Your task to perform on an android device: Open battery settings Image 0: 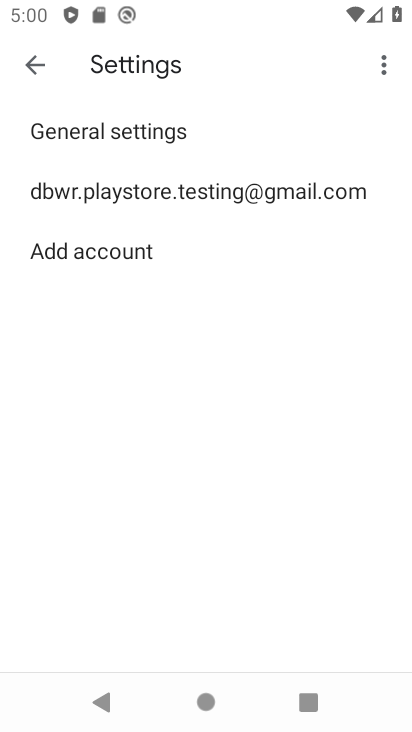
Step 0: click (17, 65)
Your task to perform on an android device: Open battery settings Image 1: 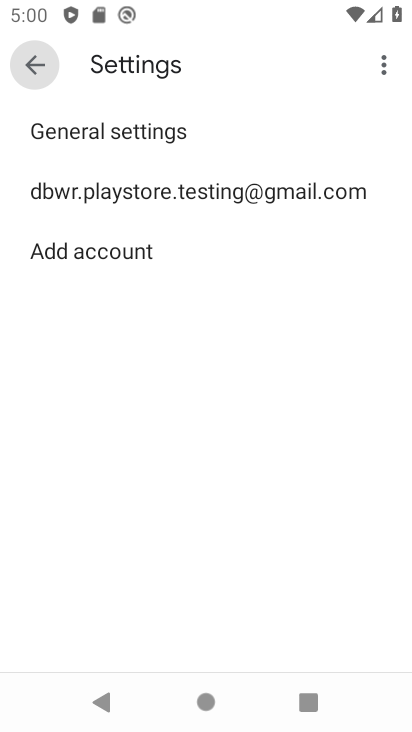
Step 1: click (18, 64)
Your task to perform on an android device: Open battery settings Image 2: 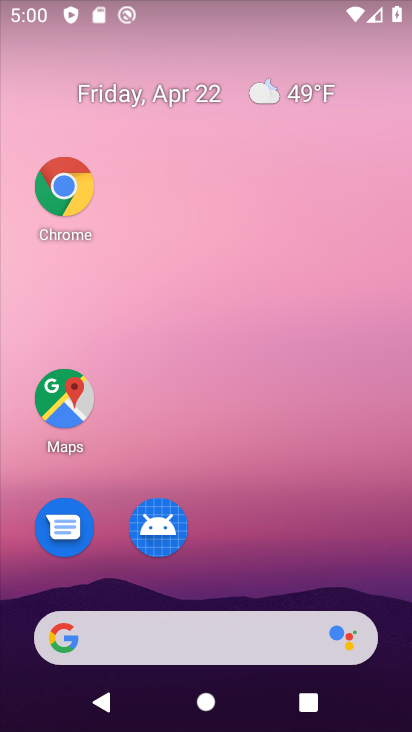
Step 2: drag from (371, 661) to (161, 185)
Your task to perform on an android device: Open battery settings Image 3: 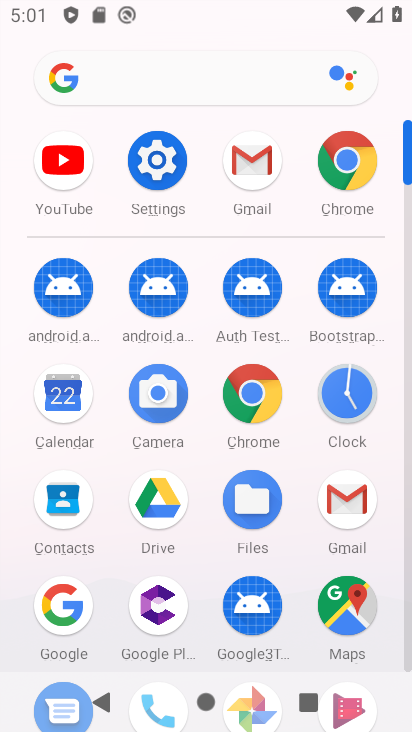
Step 3: click (154, 162)
Your task to perform on an android device: Open battery settings Image 4: 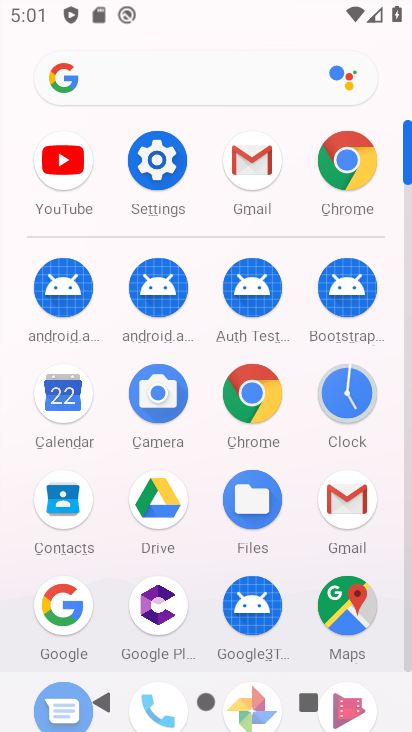
Step 4: click (153, 167)
Your task to perform on an android device: Open battery settings Image 5: 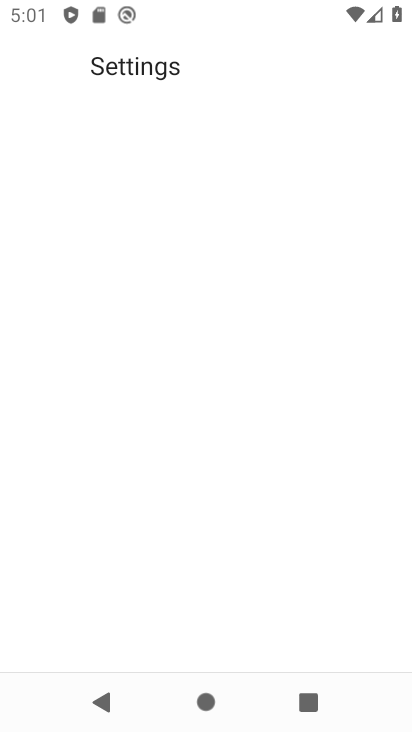
Step 5: click (153, 167)
Your task to perform on an android device: Open battery settings Image 6: 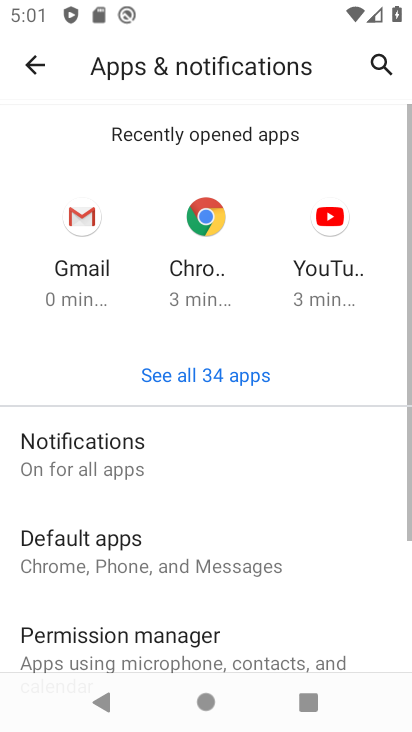
Step 6: click (31, 84)
Your task to perform on an android device: Open battery settings Image 7: 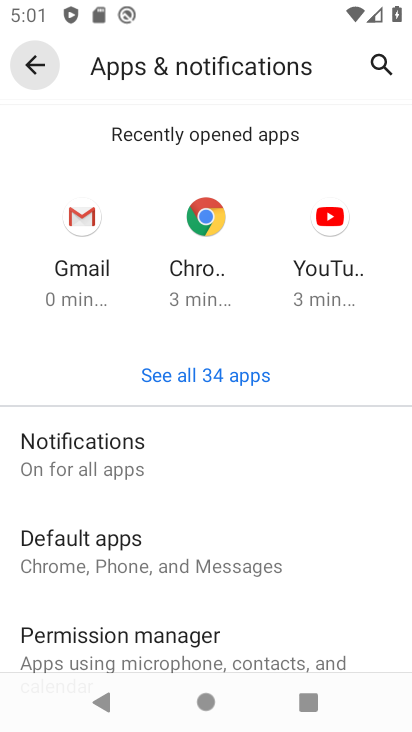
Step 7: click (36, 79)
Your task to perform on an android device: Open battery settings Image 8: 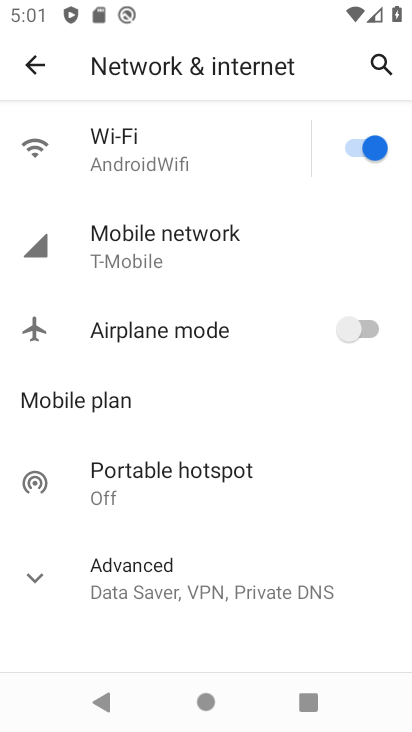
Step 8: click (34, 68)
Your task to perform on an android device: Open battery settings Image 9: 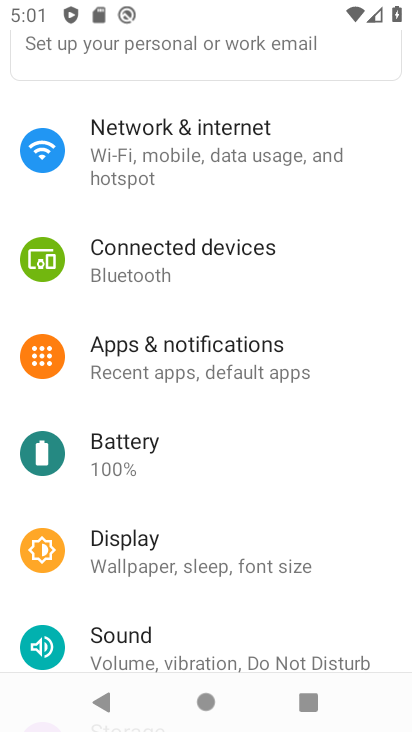
Step 9: click (121, 438)
Your task to perform on an android device: Open battery settings Image 10: 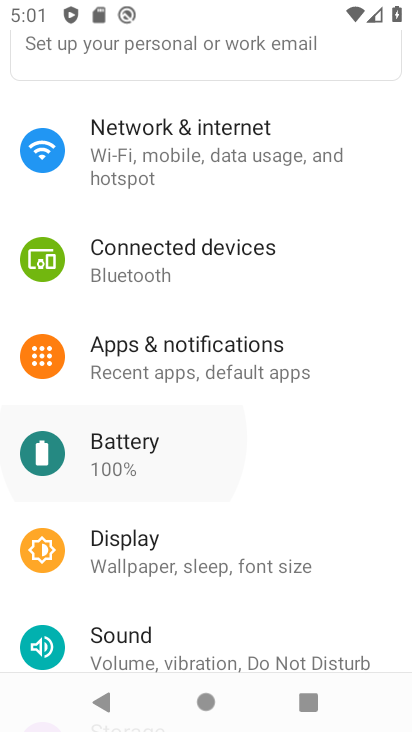
Step 10: click (126, 436)
Your task to perform on an android device: Open battery settings Image 11: 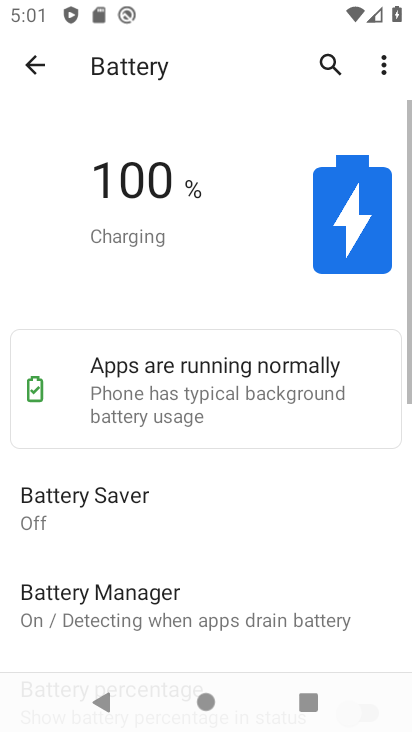
Step 11: click (121, 452)
Your task to perform on an android device: Open battery settings Image 12: 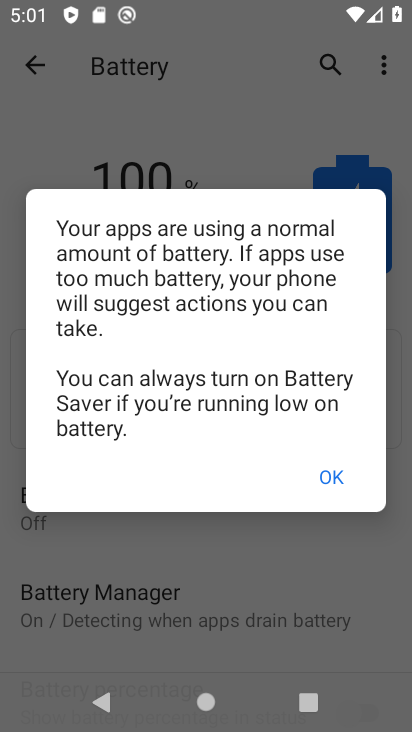
Step 12: task complete